Your task to perform on an android device: Search for seafood restaurants on Google Maps Image 0: 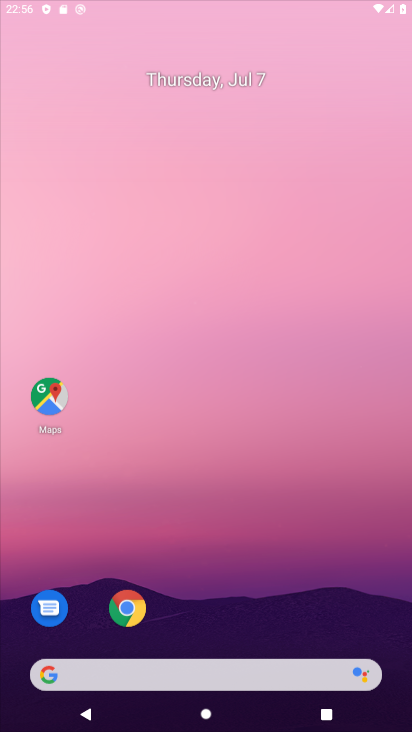
Step 0: click (259, 208)
Your task to perform on an android device: Search for seafood restaurants on Google Maps Image 1: 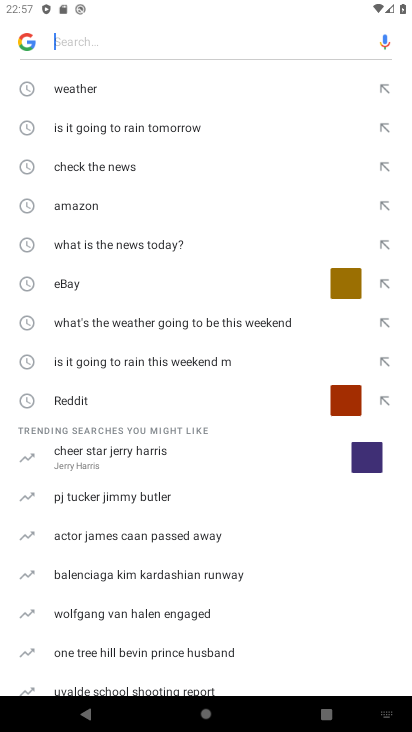
Step 1: press home button
Your task to perform on an android device: Search for seafood restaurants on Google Maps Image 2: 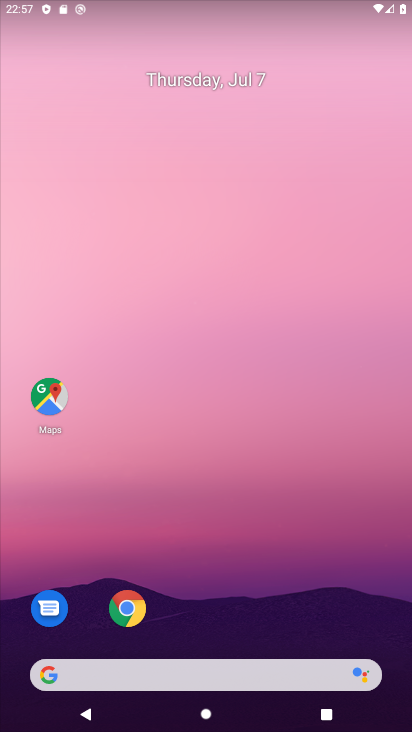
Step 2: click (42, 381)
Your task to perform on an android device: Search for seafood restaurants on Google Maps Image 3: 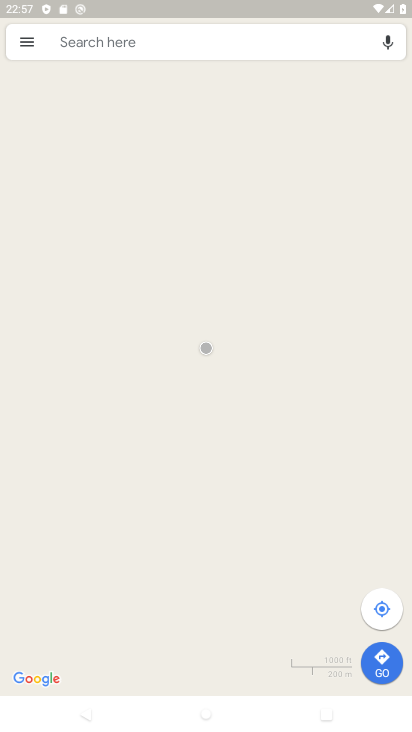
Step 3: drag from (209, 731) to (101, 713)
Your task to perform on an android device: Search for seafood restaurants on Google Maps Image 4: 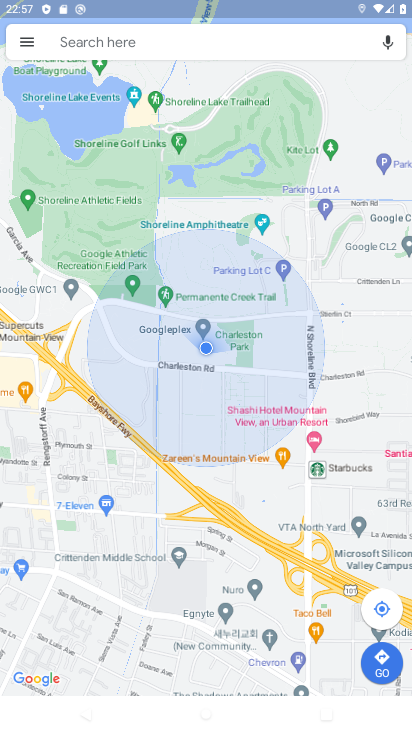
Step 4: click (216, 43)
Your task to perform on an android device: Search for seafood restaurants on Google Maps Image 5: 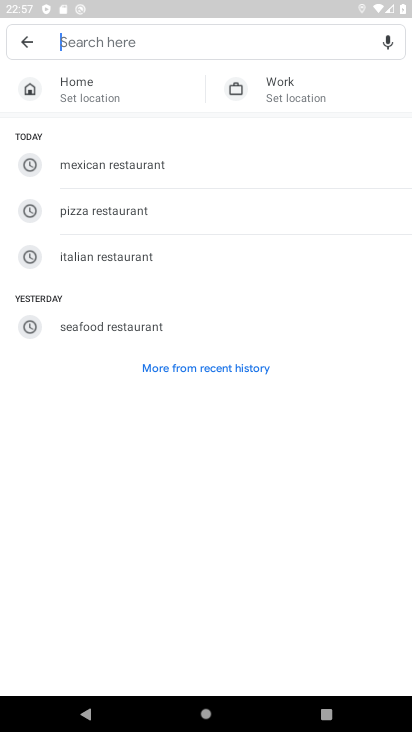
Step 5: type " seafood restaurants "
Your task to perform on an android device: Search for seafood restaurants on Google Maps Image 6: 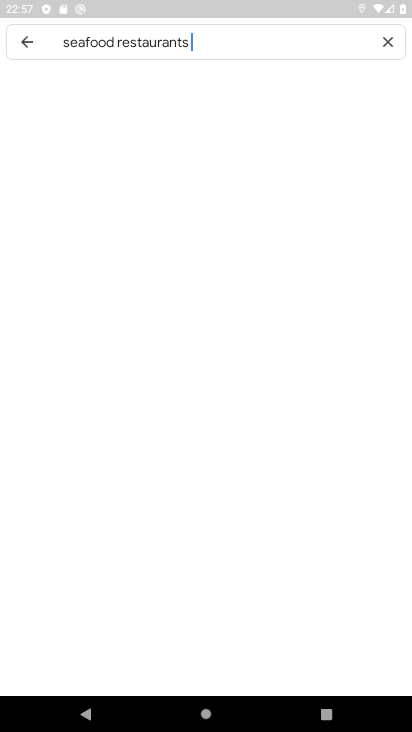
Step 6: click (220, 55)
Your task to perform on an android device: Search for seafood restaurants on Google Maps Image 7: 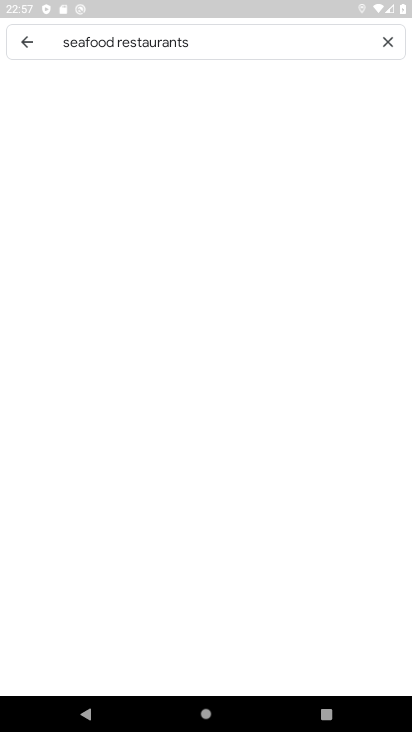
Step 7: click (220, 50)
Your task to perform on an android device: Search for seafood restaurants on Google Maps Image 8: 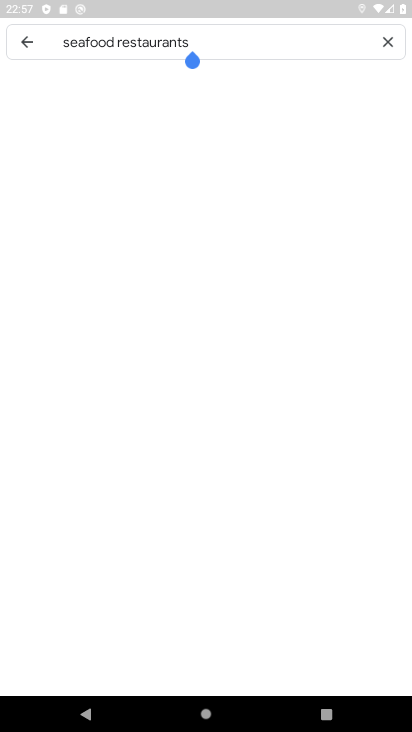
Step 8: click (224, 43)
Your task to perform on an android device: Search for seafood restaurants on Google Maps Image 9: 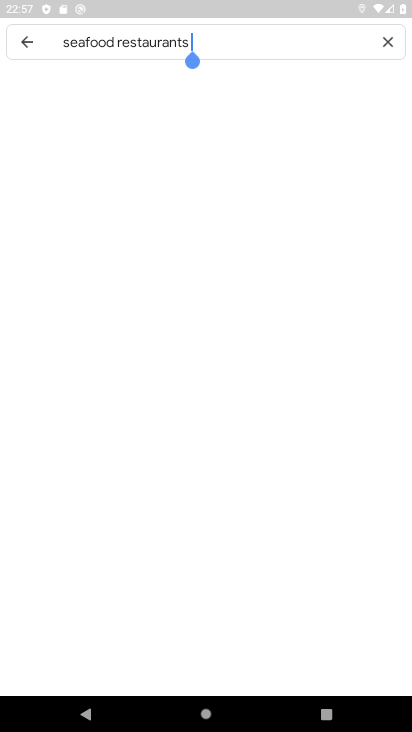
Step 9: click (224, 43)
Your task to perform on an android device: Search for seafood restaurants on Google Maps Image 10: 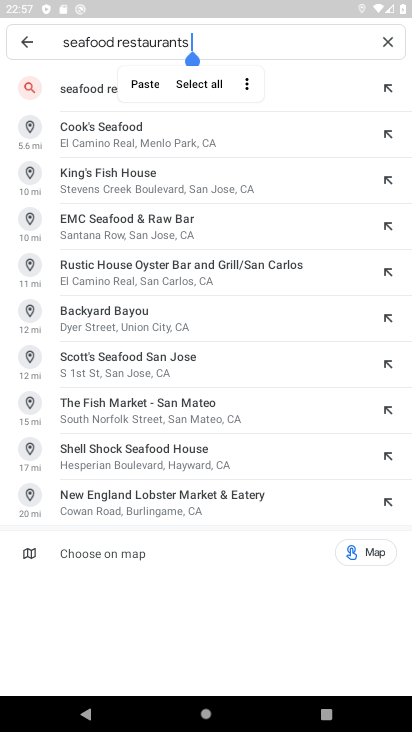
Step 10: click (72, 84)
Your task to perform on an android device: Search for seafood restaurants on Google Maps Image 11: 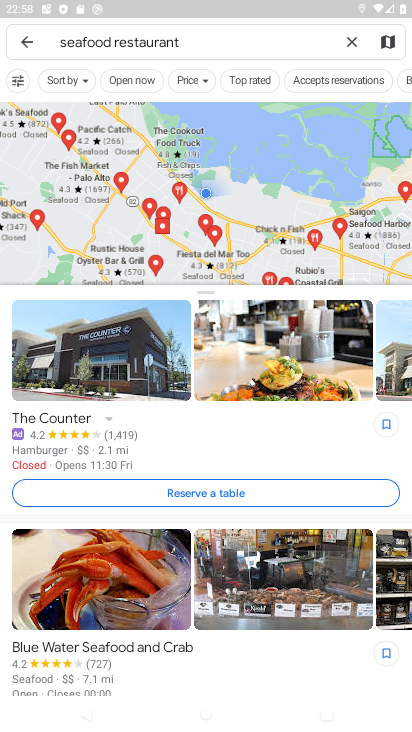
Step 11: task complete